Your task to perform on an android device: Open Chrome and go to the settings page Image 0: 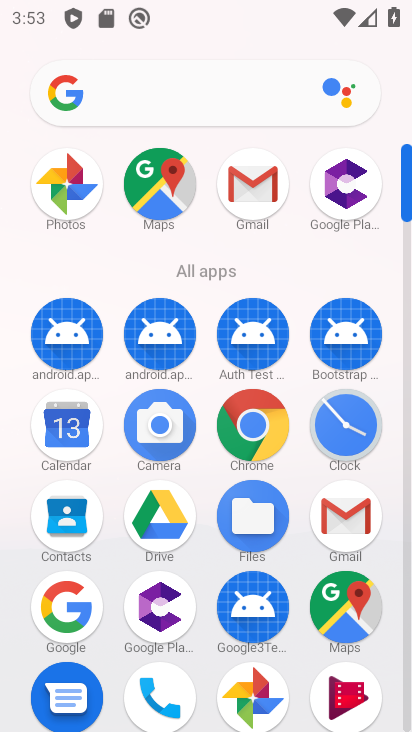
Step 0: click (253, 421)
Your task to perform on an android device: Open Chrome and go to the settings page Image 1: 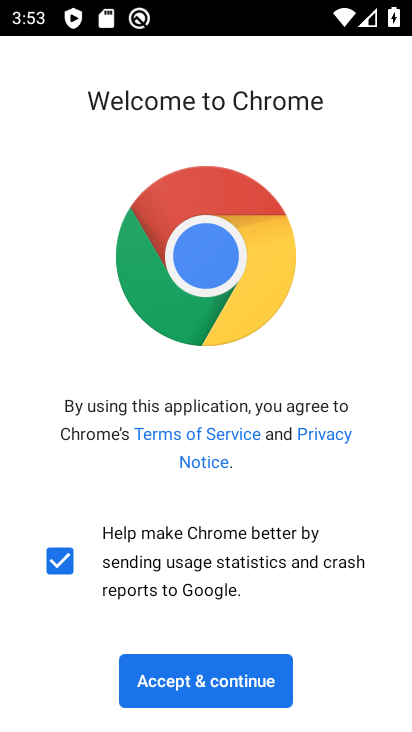
Step 1: click (267, 679)
Your task to perform on an android device: Open Chrome and go to the settings page Image 2: 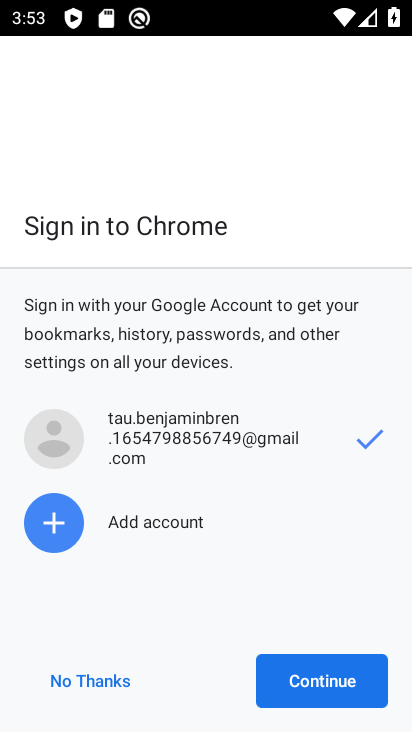
Step 2: click (340, 686)
Your task to perform on an android device: Open Chrome and go to the settings page Image 3: 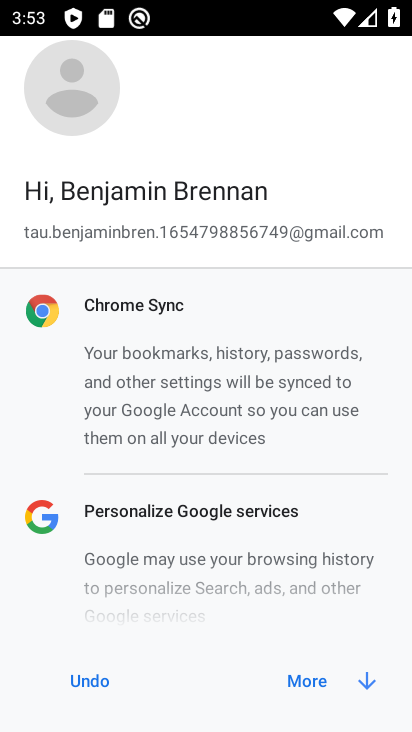
Step 3: click (339, 686)
Your task to perform on an android device: Open Chrome and go to the settings page Image 4: 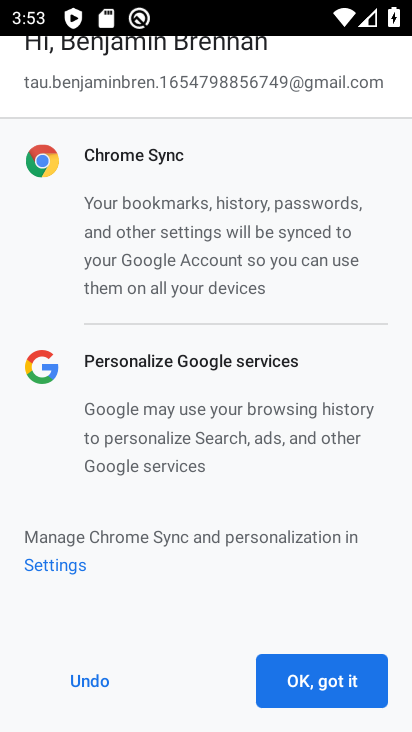
Step 4: click (322, 680)
Your task to perform on an android device: Open Chrome and go to the settings page Image 5: 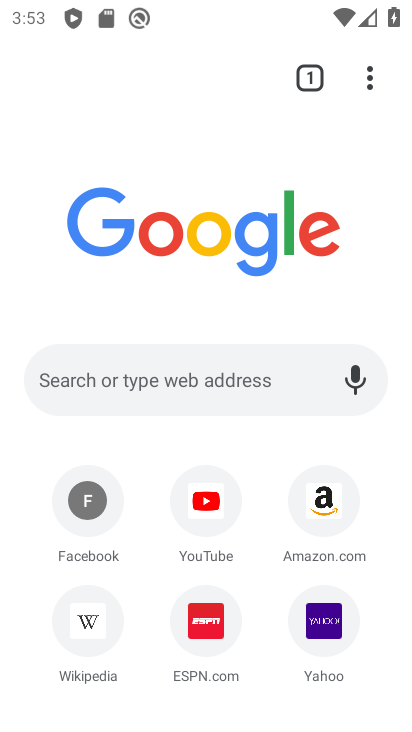
Step 5: click (345, 102)
Your task to perform on an android device: Open Chrome and go to the settings page Image 6: 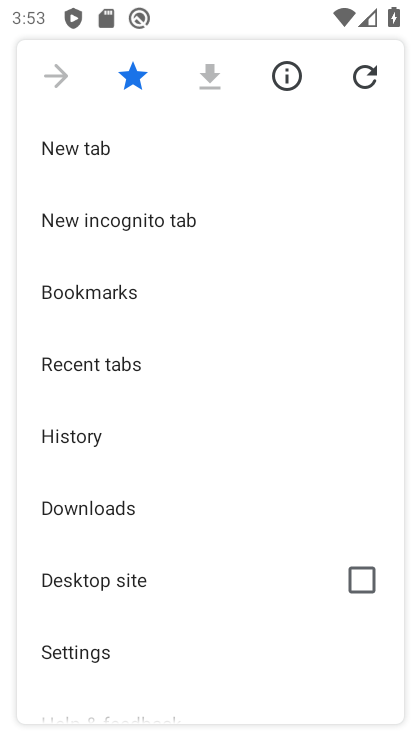
Step 6: click (153, 647)
Your task to perform on an android device: Open Chrome and go to the settings page Image 7: 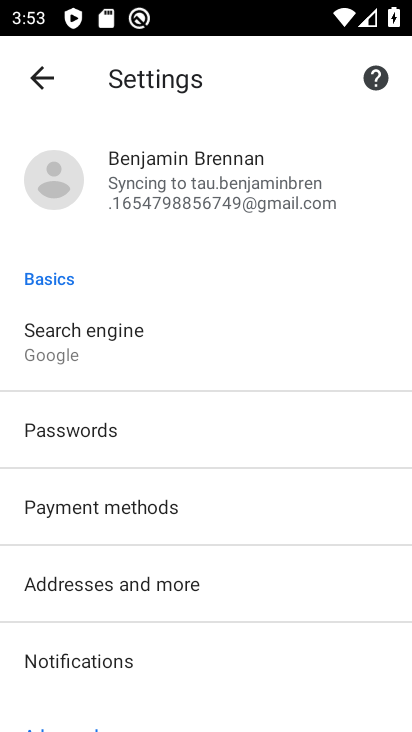
Step 7: task complete